Your task to perform on an android device: Go to Yahoo.com Image 0: 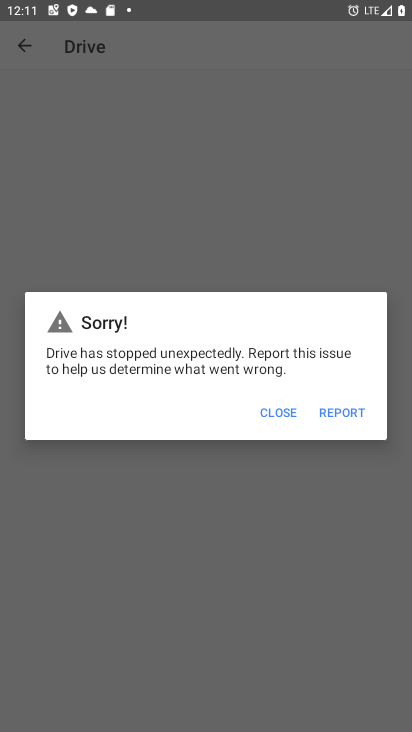
Step 0: press home button
Your task to perform on an android device: Go to Yahoo.com Image 1: 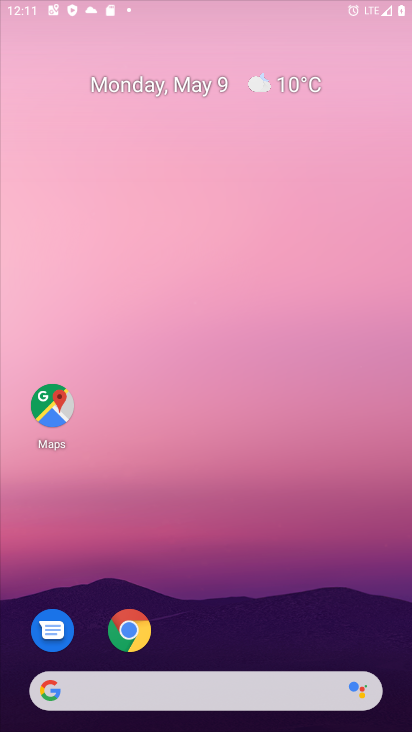
Step 1: drag from (346, 631) to (236, 26)
Your task to perform on an android device: Go to Yahoo.com Image 2: 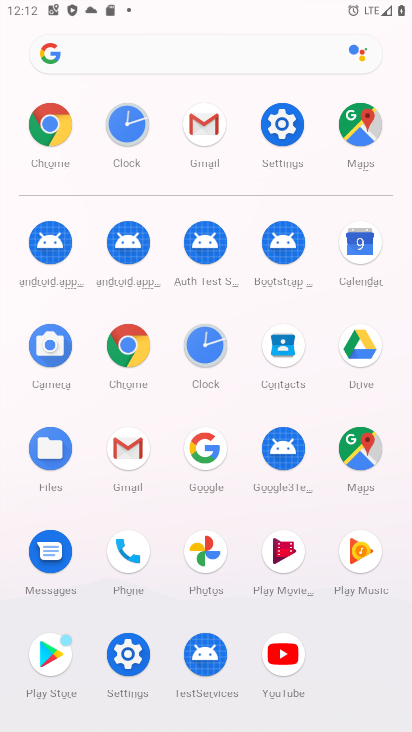
Step 2: click (126, 339)
Your task to perform on an android device: Go to Yahoo.com Image 3: 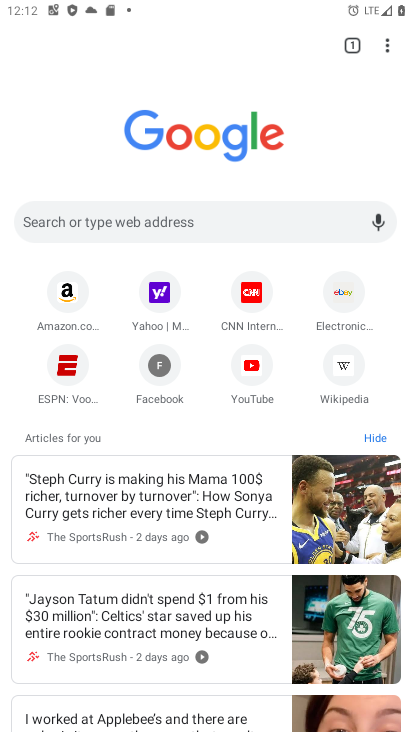
Step 3: click (164, 305)
Your task to perform on an android device: Go to Yahoo.com Image 4: 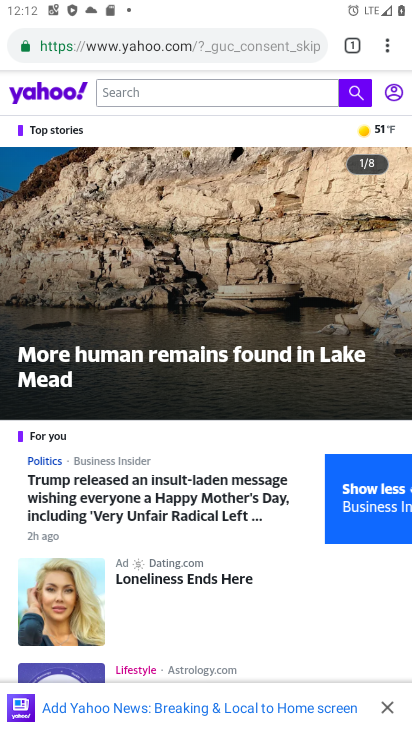
Step 4: task complete